Your task to perform on an android device: Show the shopping cart on amazon. Add apple airpods pro to the cart on amazon, then select checkout. Image 0: 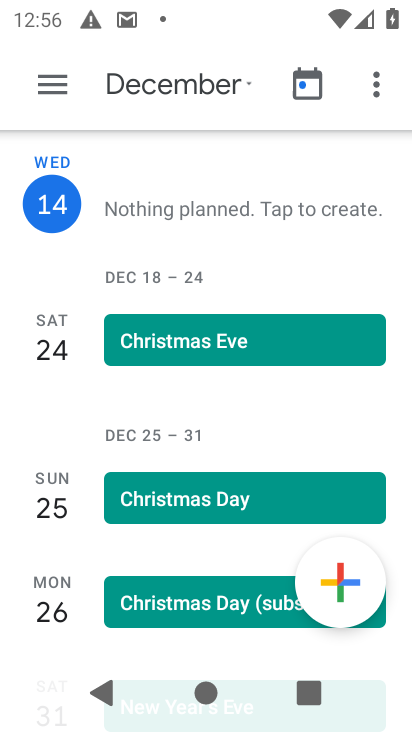
Step 0: press home button
Your task to perform on an android device: Show the shopping cart on amazon. Add apple airpods pro to the cart on amazon, then select checkout. Image 1: 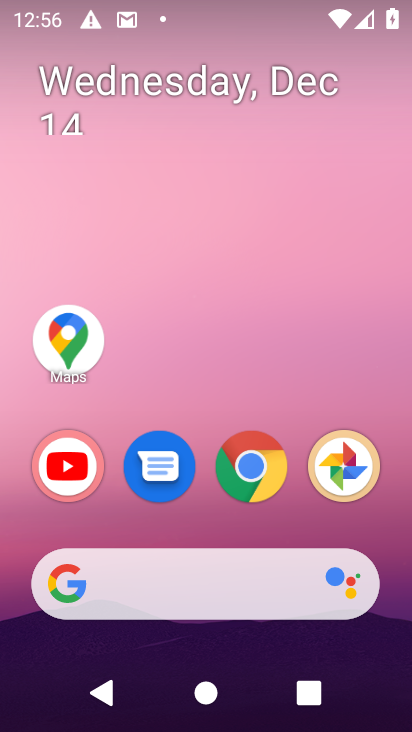
Step 1: drag from (179, 454) to (171, 104)
Your task to perform on an android device: Show the shopping cart on amazon. Add apple airpods pro to the cart on amazon, then select checkout. Image 2: 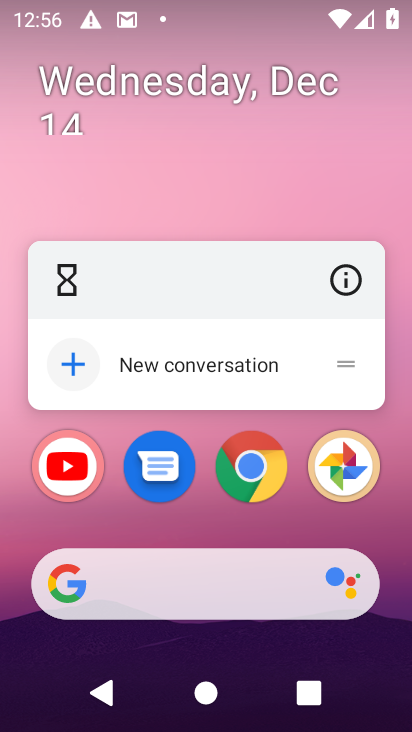
Step 2: click (182, 514)
Your task to perform on an android device: Show the shopping cart on amazon. Add apple airpods pro to the cart on amazon, then select checkout. Image 3: 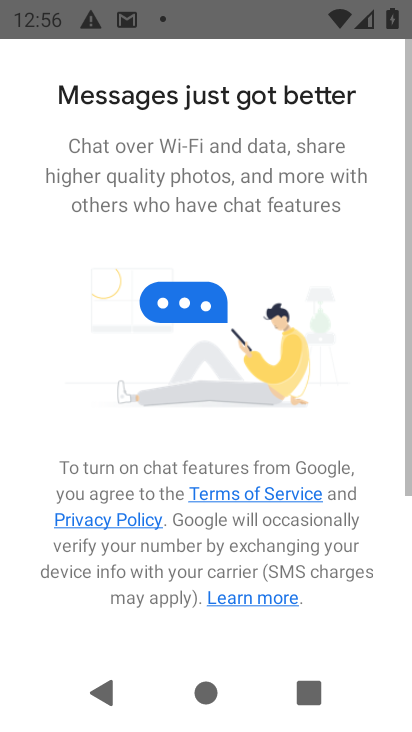
Step 3: press home button
Your task to perform on an android device: Show the shopping cart on amazon. Add apple airpods pro to the cart on amazon, then select checkout. Image 4: 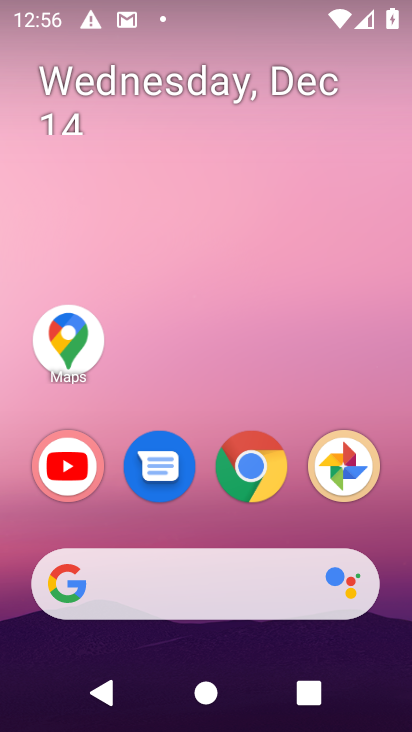
Step 4: drag from (201, 530) to (198, 71)
Your task to perform on an android device: Show the shopping cart on amazon. Add apple airpods pro to the cart on amazon, then select checkout. Image 5: 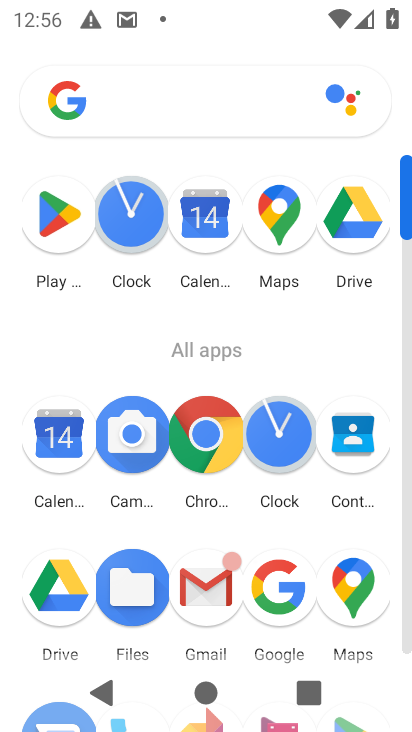
Step 5: click (285, 601)
Your task to perform on an android device: Show the shopping cart on amazon. Add apple airpods pro to the cart on amazon, then select checkout. Image 6: 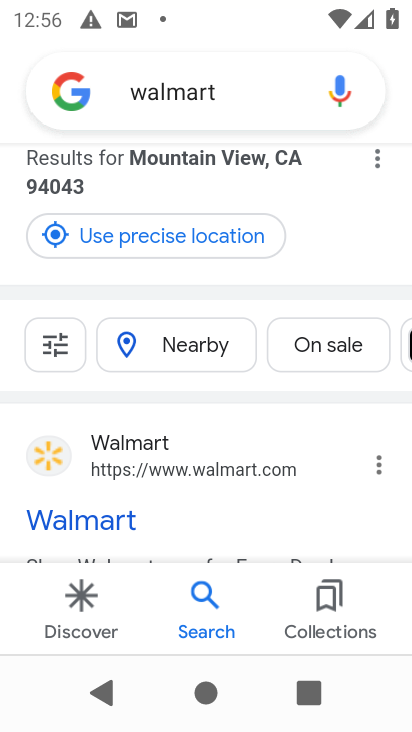
Step 6: drag from (146, 445) to (156, 268)
Your task to perform on an android device: Show the shopping cart on amazon. Add apple airpods pro to the cart on amazon, then select checkout. Image 7: 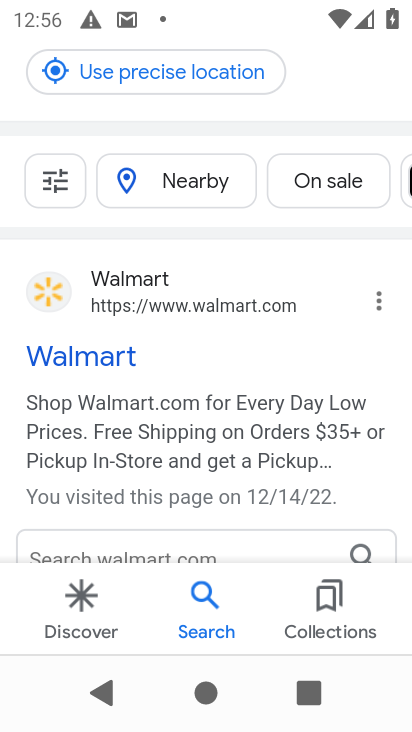
Step 7: drag from (150, 512) to (158, 284)
Your task to perform on an android device: Show the shopping cart on amazon. Add apple airpods pro to the cart on amazon, then select checkout. Image 8: 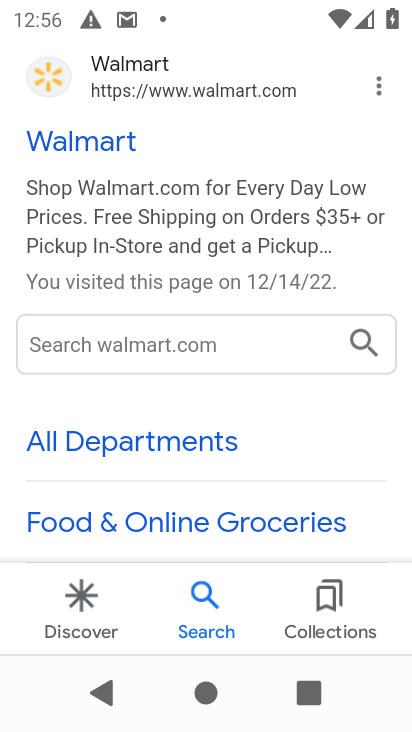
Step 8: drag from (134, 492) to (146, 337)
Your task to perform on an android device: Show the shopping cart on amazon. Add apple airpods pro to the cart on amazon, then select checkout. Image 9: 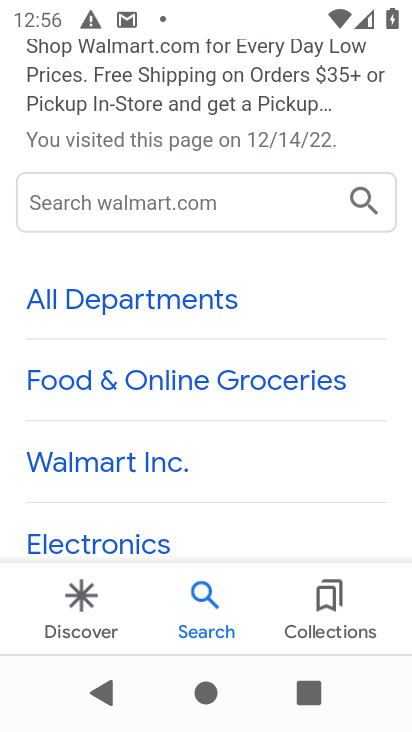
Step 9: drag from (188, 423) to (186, 212)
Your task to perform on an android device: Show the shopping cart on amazon. Add apple airpods pro to the cart on amazon, then select checkout. Image 10: 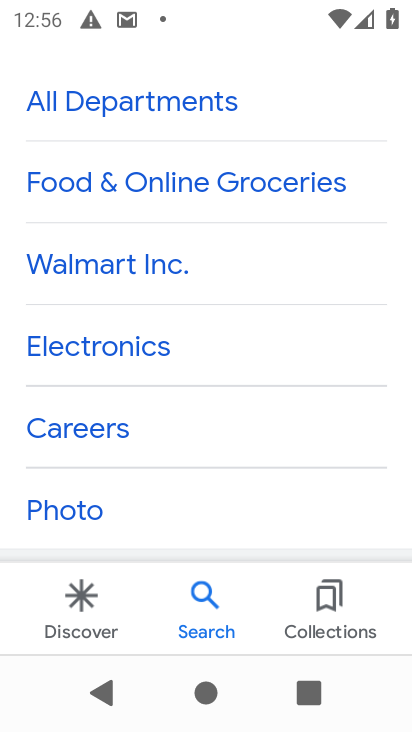
Step 10: drag from (187, 203) to (187, 546)
Your task to perform on an android device: Show the shopping cart on amazon. Add apple airpods pro to the cart on amazon, then select checkout. Image 11: 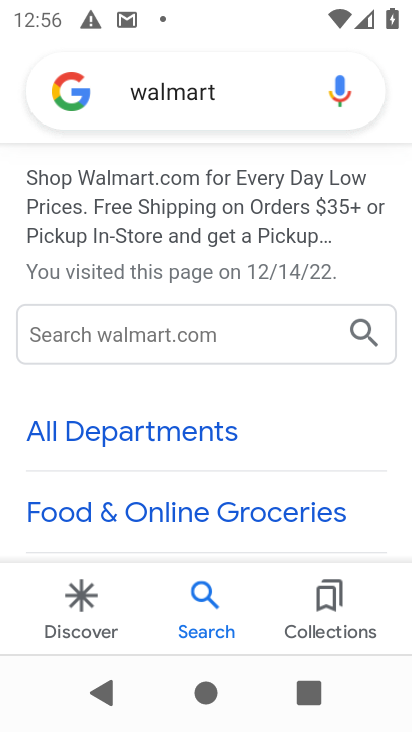
Step 11: drag from (166, 156) to (176, 350)
Your task to perform on an android device: Show the shopping cart on amazon. Add apple airpods pro to the cart on amazon, then select checkout. Image 12: 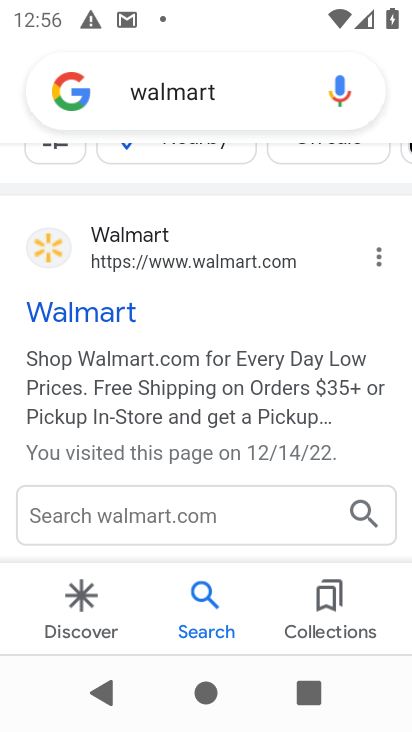
Step 12: click (189, 75)
Your task to perform on an android device: Show the shopping cart on amazon. Add apple airpods pro to the cart on amazon, then select checkout. Image 13: 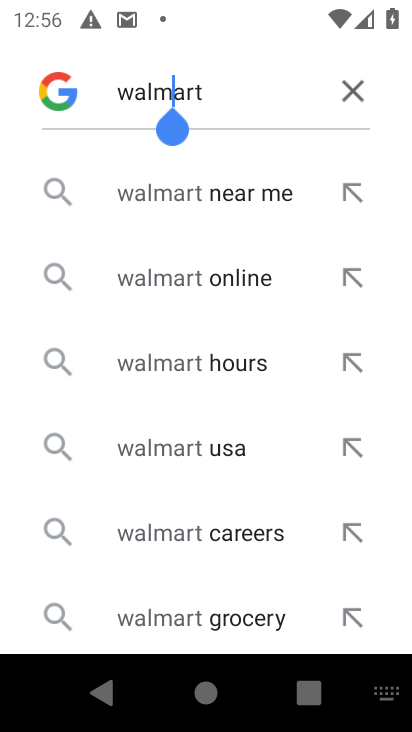
Step 13: click (353, 85)
Your task to perform on an android device: Show the shopping cart on amazon. Add apple airpods pro to the cart on amazon, then select checkout. Image 14: 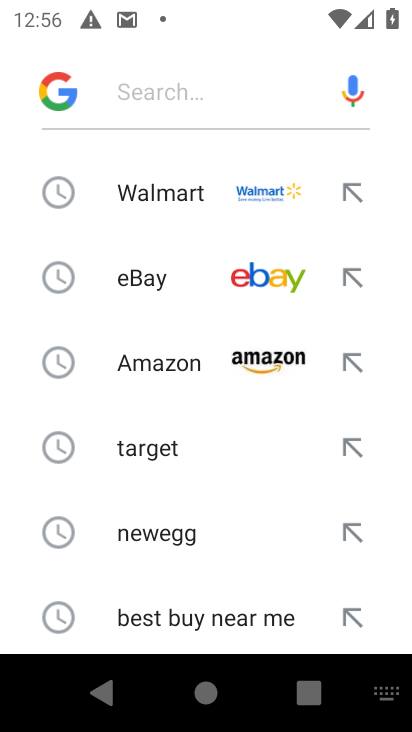
Step 14: click (170, 366)
Your task to perform on an android device: Show the shopping cart on amazon. Add apple airpods pro to the cart on amazon, then select checkout. Image 15: 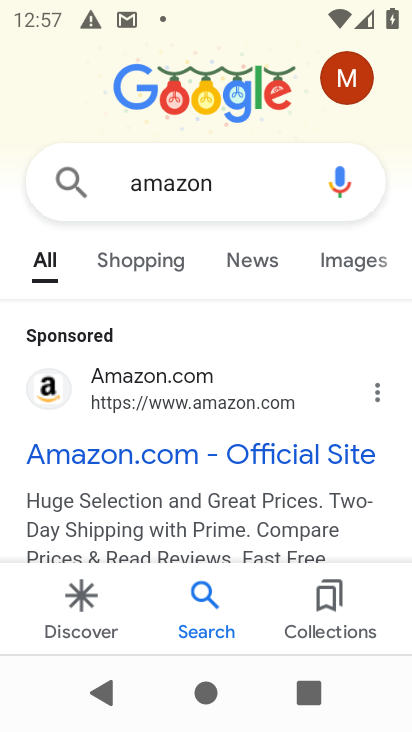
Step 15: click (113, 455)
Your task to perform on an android device: Show the shopping cart on amazon. Add apple airpods pro to the cart on amazon, then select checkout. Image 16: 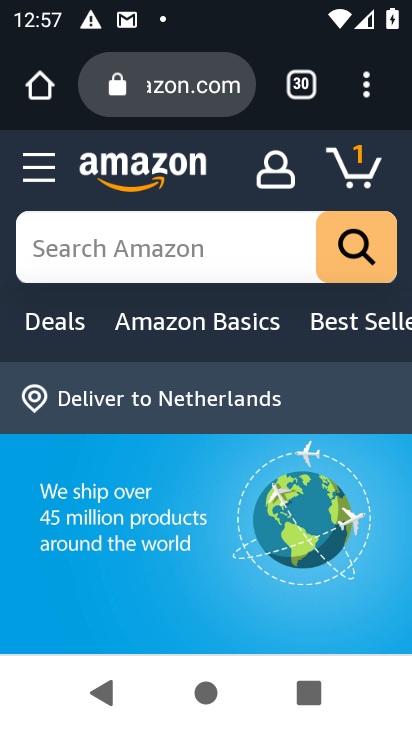
Step 16: click (341, 165)
Your task to perform on an android device: Show the shopping cart on amazon. Add apple airpods pro to the cart on amazon, then select checkout. Image 17: 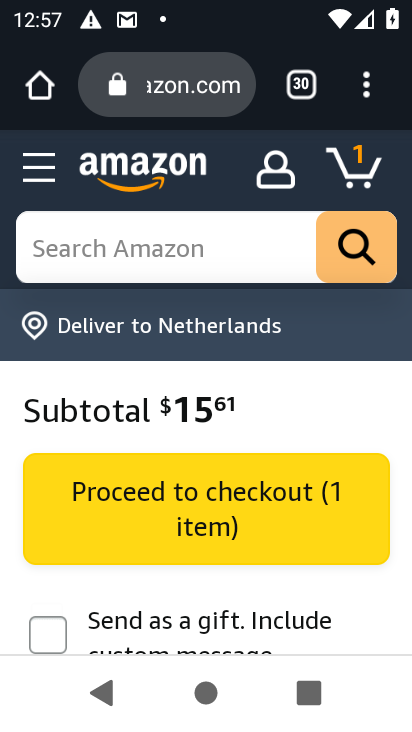
Step 17: click (233, 248)
Your task to perform on an android device: Show the shopping cart on amazon. Add apple airpods pro to the cart on amazon, then select checkout. Image 18: 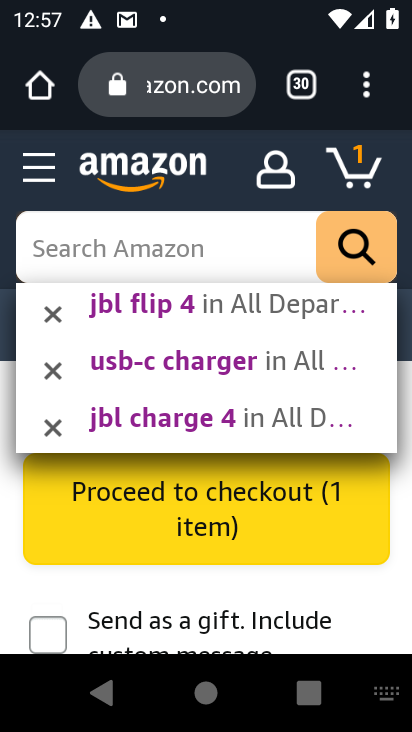
Step 18: type " apple airpods pro"
Your task to perform on an android device: Show the shopping cart on amazon. Add apple airpods pro to the cart on amazon, then select checkout. Image 19: 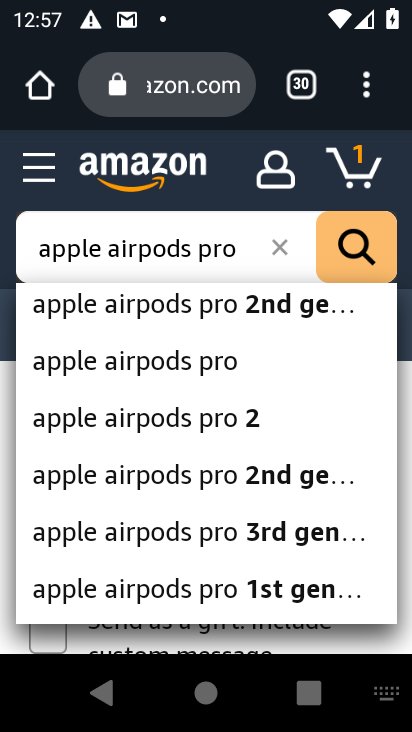
Step 19: click (172, 366)
Your task to perform on an android device: Show the shopping cart on amazon. Add apple airpods pro to the cart on amazon, then select checkout. Image 20: 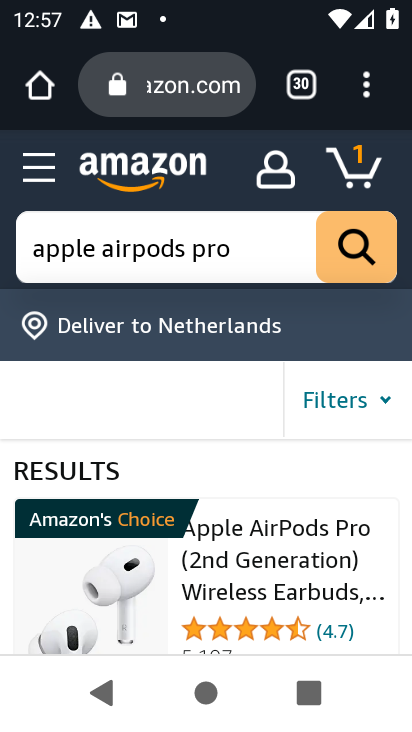
Step 20: click (226, 569)
Your task to perform on an android device: Show the shopping cart on amazon. Add apple airpods pro to the cart on amazon, then select checkout. Image 21: 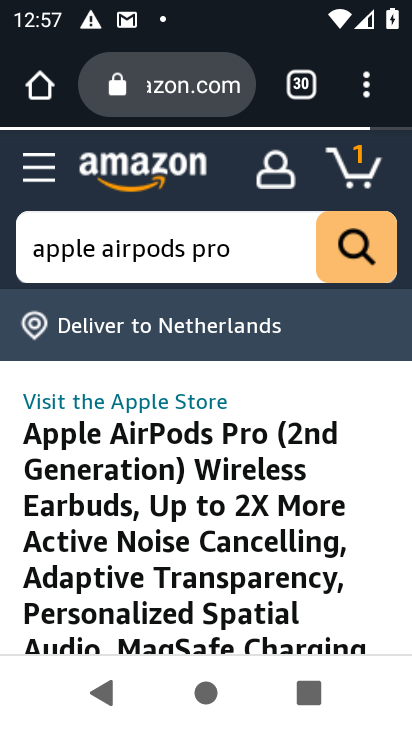
Step 21: task complete